Your task to perform on an android device: change keyboard looks Image 0: 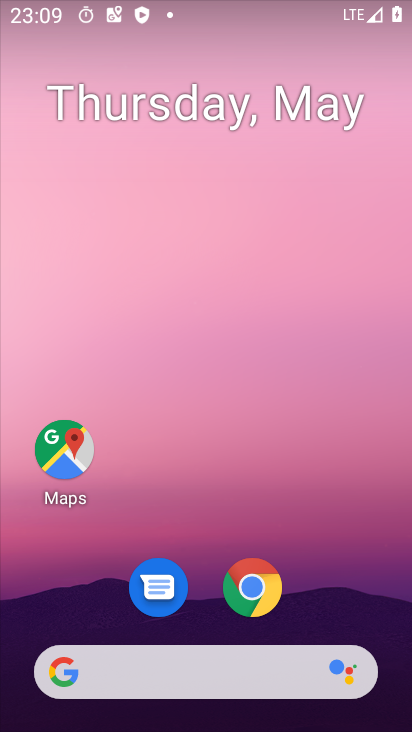
Step 0: drag from (371, 653) to (258, 3)
Your task to perform on an android device: change keyboard looks Image 1: 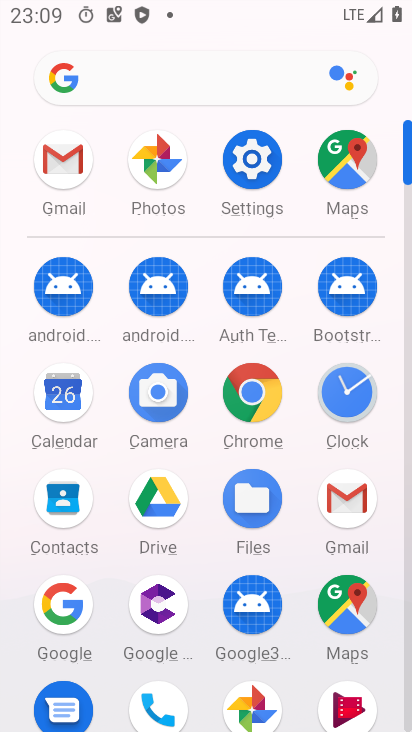
Step 1: click (247, 167)
Your task to perform on an android device: change keyboard looks Image 2: 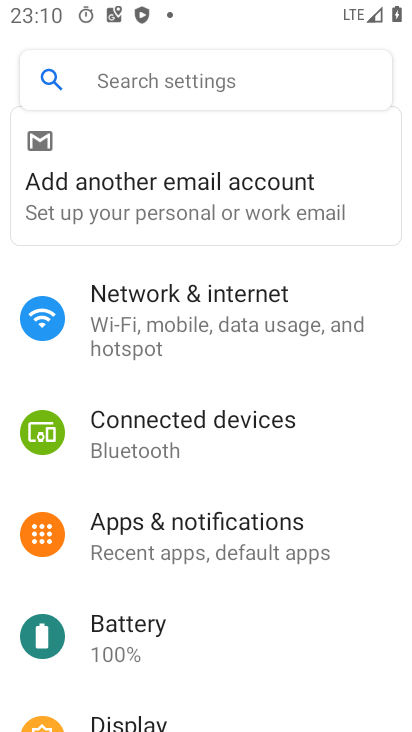
Step 2: drag from (360, 714) to (296, 101)
Your task to perform on an android device: change keyboard looks Image 3: 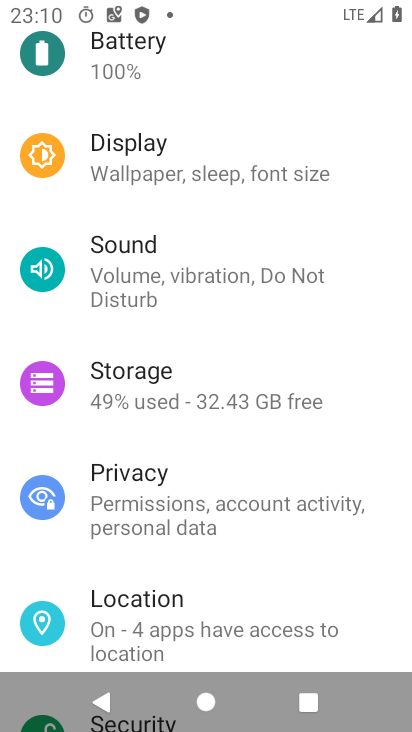
Step 3: drag from (339, 624) to (269, 141)
Your task to perform on an android device: change keyboard looks Image 4: 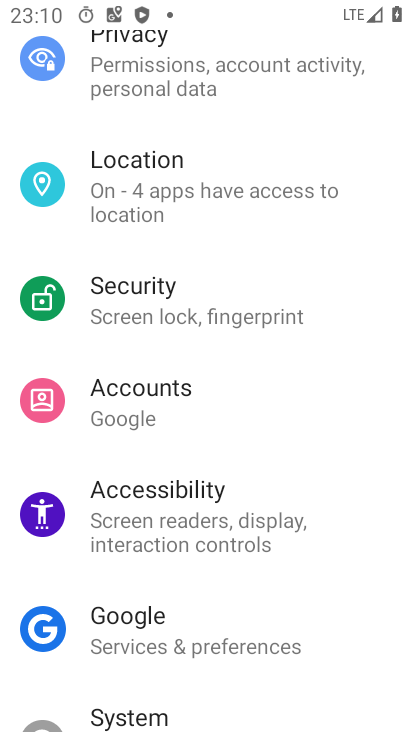
Step 4: drag from (359, 597) to (285, 306)
Your task to perform on an android device: change keyboard looks Image 5: 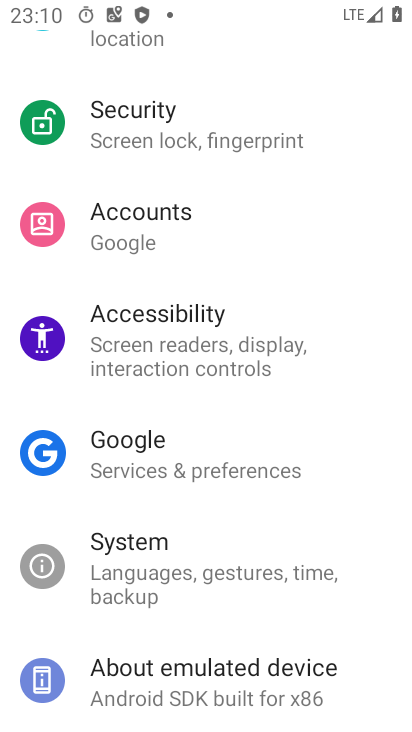
Step 5: click (141, 574)
Your task to perform on an android device: change keyboard looks Image 6: 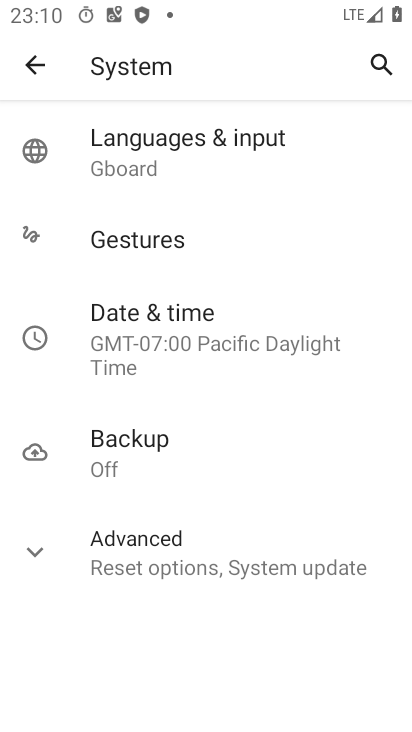
Step 6: click (149, 147)
Your task to perform on an android device: change keyboard looks Image 7: 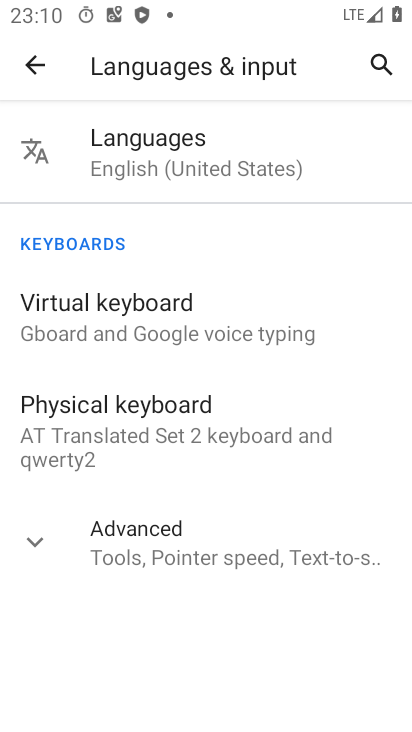
Step 7: click (62, 338)
Your task to perform on an android device: change keyboard looks Image 8: 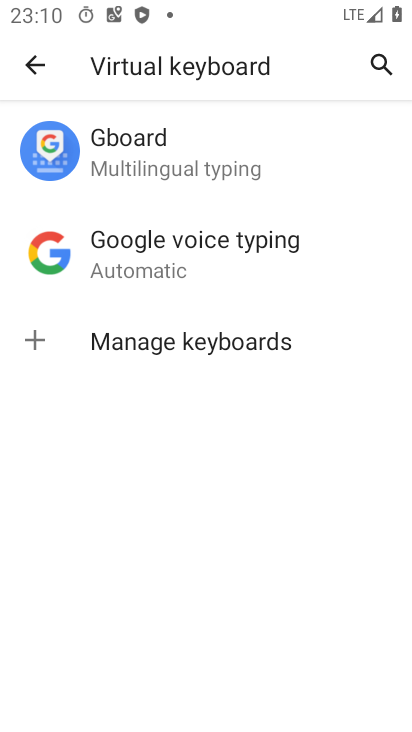
Step 8: click (100, 173)
Your task to perform on an android device: change keyboard looks Image 9: 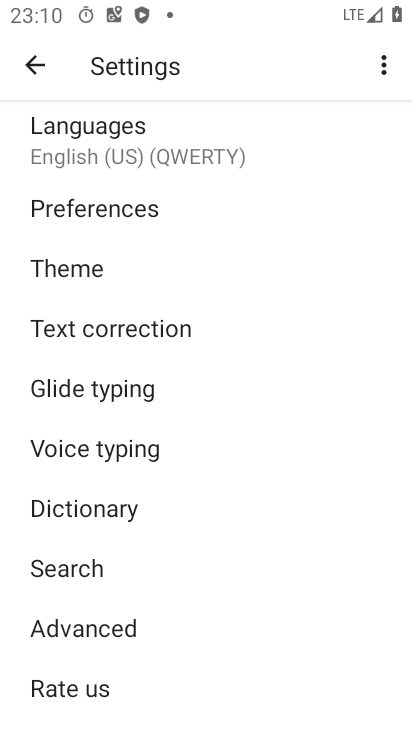
Step 9: click (59, 273)
Your task to perform on an android device: change keyboard looks Image 10: 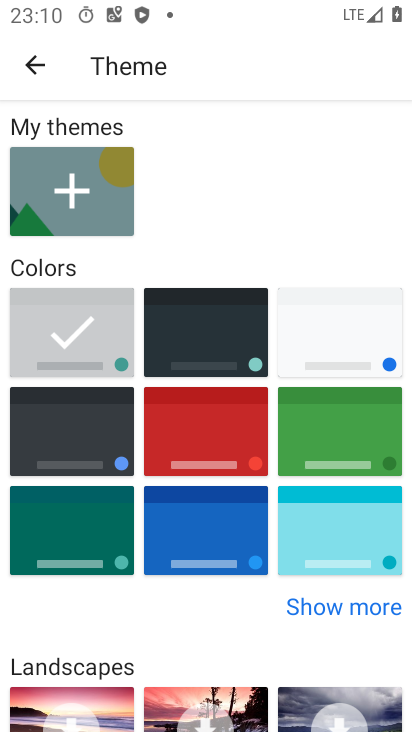
Step 10: click (74, 425)
Your task to perform on an android device: change keyboard looks Image 11: 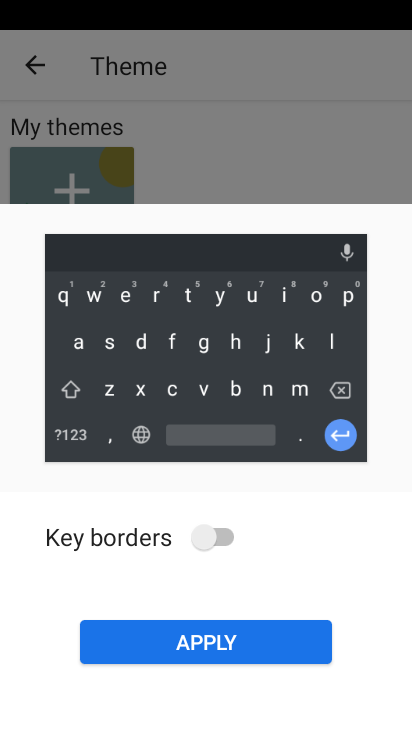
Step 11: click (202, 543)
Your task to perform on an android device: change keyboard looks Image 12: 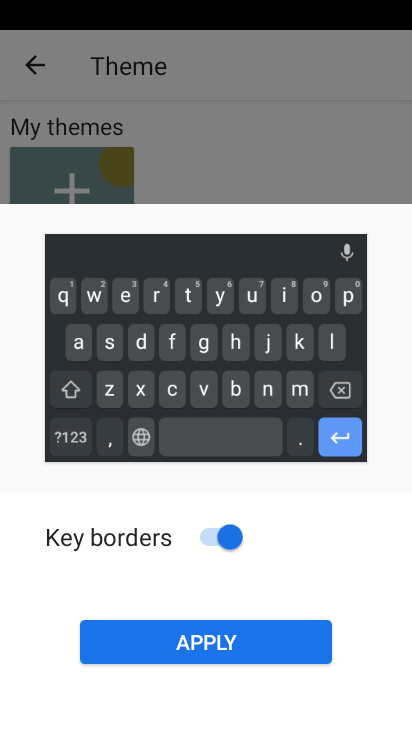
Step 12: click (192, 650)
Your task to perform on an android device: change keyboard looks Image 13: 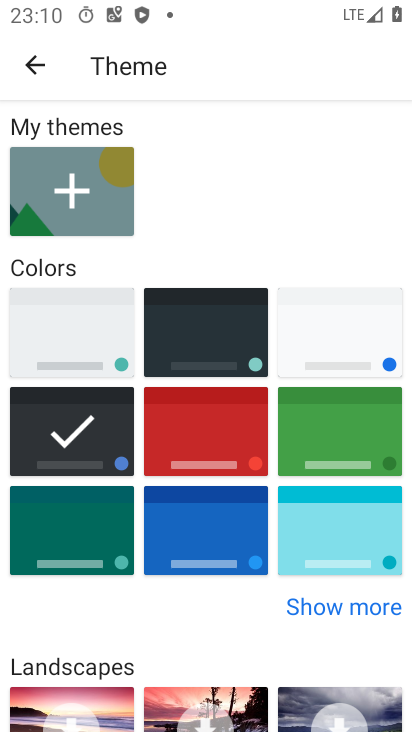
Step 13: task complete